Your task to perform on an android device: turn off improve location accuracy Image 0: 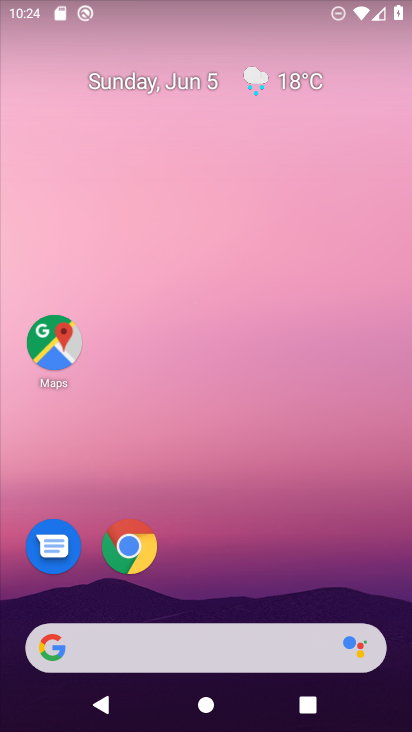
Step 0: click (326, 42)
Your task to perform on an android device: turn off improve location accuracy Image 1: 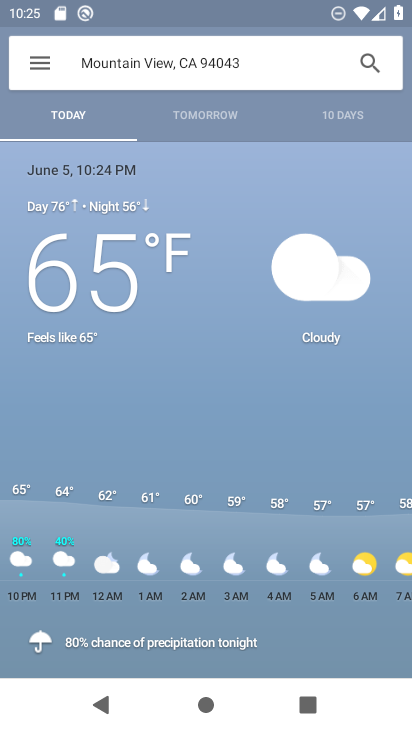
Step 1: press home button
Your task to perform on an android device: turn off improve location accuracy Image 2: 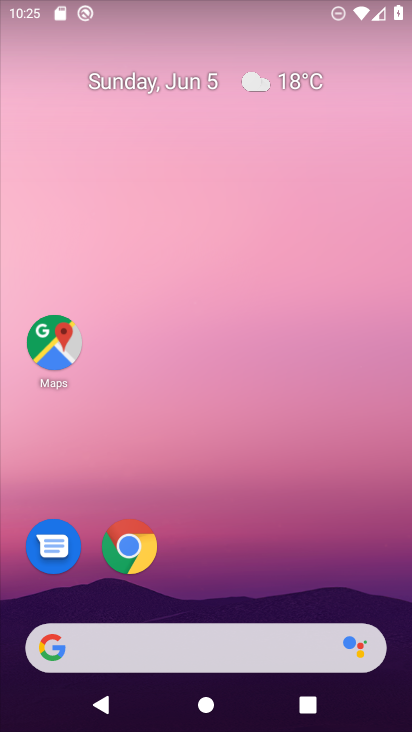
Step 2: drag from (160, 594) to (213, 226)
Your task to perform on an android device: turn off improve location accuracy Image 3: 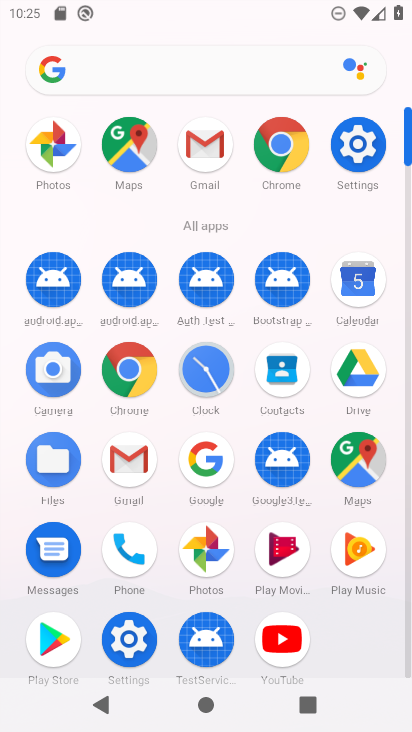
Step 3: drag from (250, 523) to (240, 300)
Your task to perform on an android device: turn off improve location accuracy Image 4: 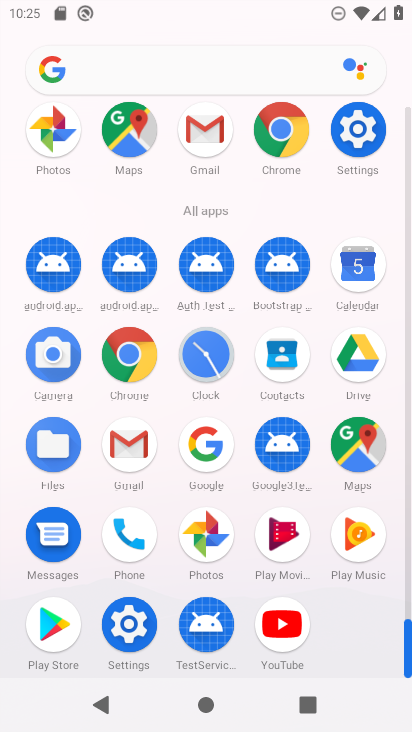
Step 4: click (366, 132)
Your task to perform on an android device: turn off improve location accuracy Image 5: 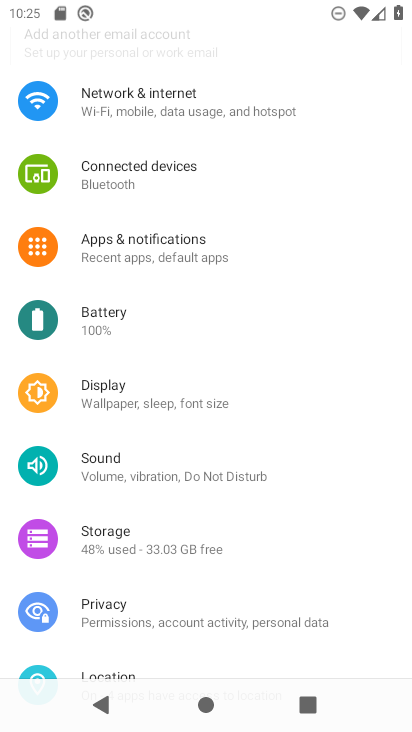
Step 5: drag from (237, 460) to (299, 658)
Your task to perform on an android device: turn off improve location accuracy Image 6: 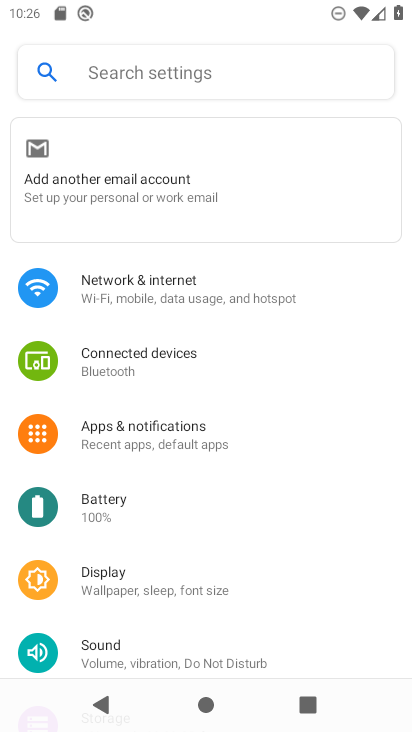
Step 6: drag from (243, 568) to (272, 275)
Your task to perform on an android device: turn off improve location accuracy Image 7: 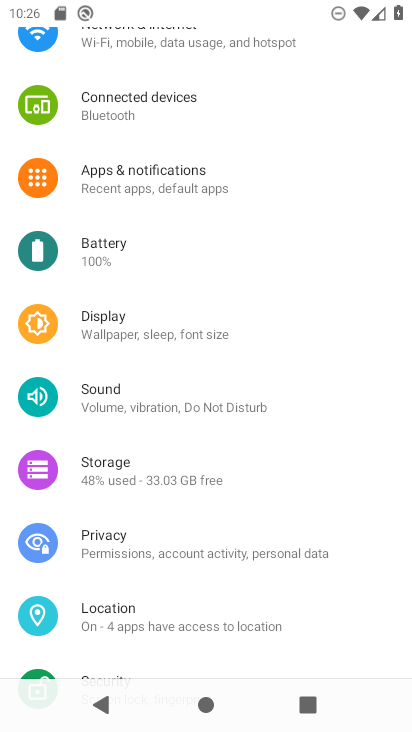
Step 7: click (146, 610)
Your task to perform on an android device: turn off improve location accuracy Image 8: 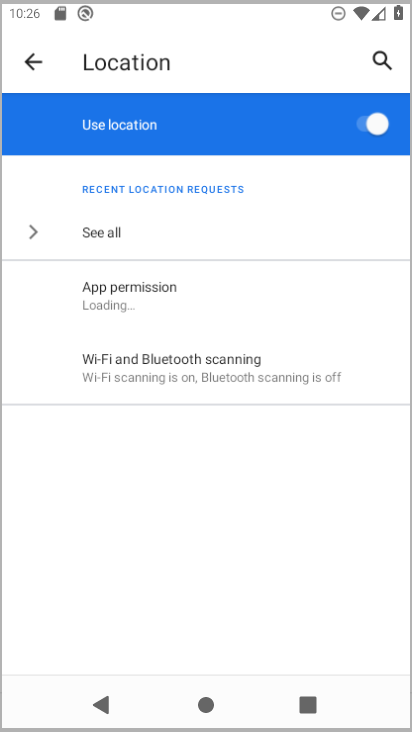
Step 8: drag from (158, 583) to (225, 101)
Your task to perform on an android device: turn off improve location accuracy Image 9: 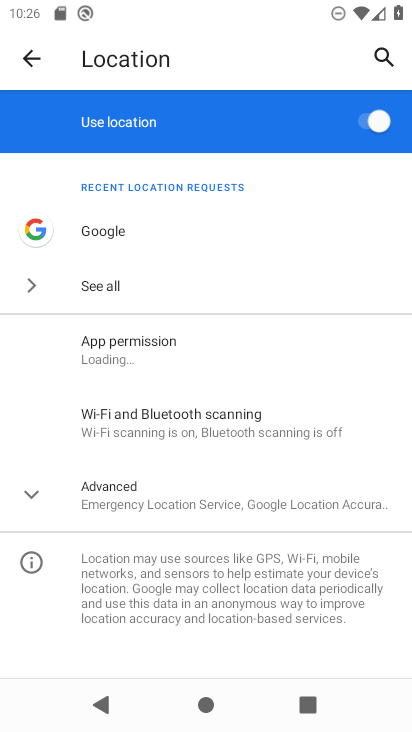
Step 9: click (154, 489)
Your task to perform on an android device: turn off improve location accuracy Image 10: 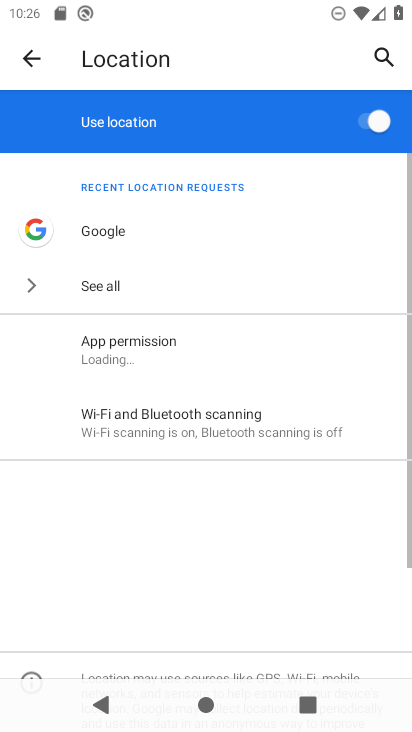
Step 10: drag from (222, 451) to (274, 91)
Your task to perform on an android device: turn off improve location accuracy Image 11: 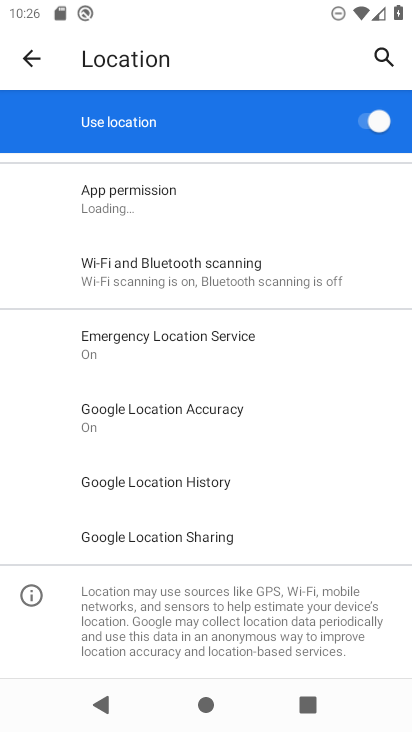
Step 11: click (203, 410)
Your task to perform on an android device: turn off improve location accuracy Image 12: 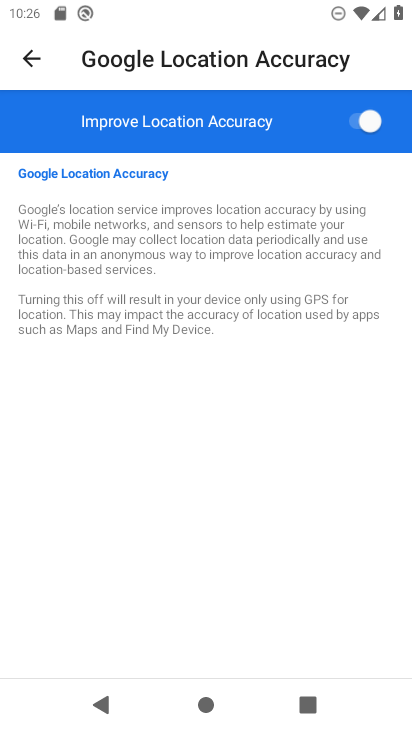
Step 12: click (357, 132)
Your task to perform on an android device: turn off improve location accuracy Image 13: 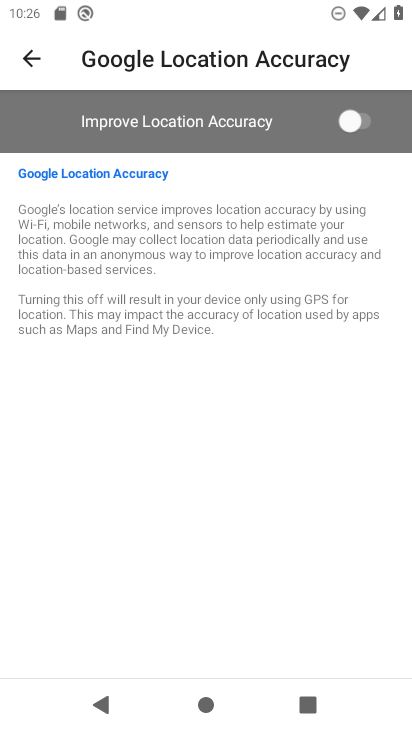
Step 13: task complete